Your task to perform on an android device: clear history in the chrome app Image 0: 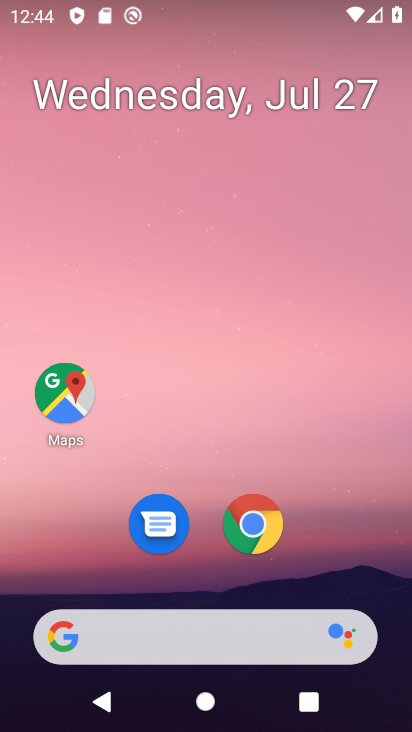
Step 0: click (265, 532)
Your task to perform on an android device: clear history in the chrome app Image 1: 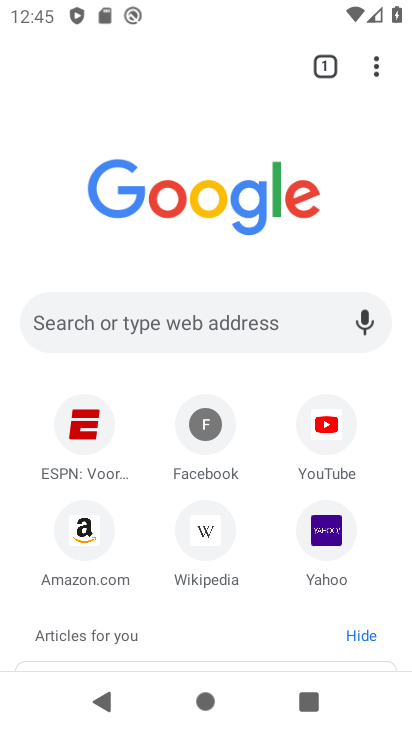
Step 1: click (376, 69)
Your task to perform on an android device: clear history in the chrome app Image 2: 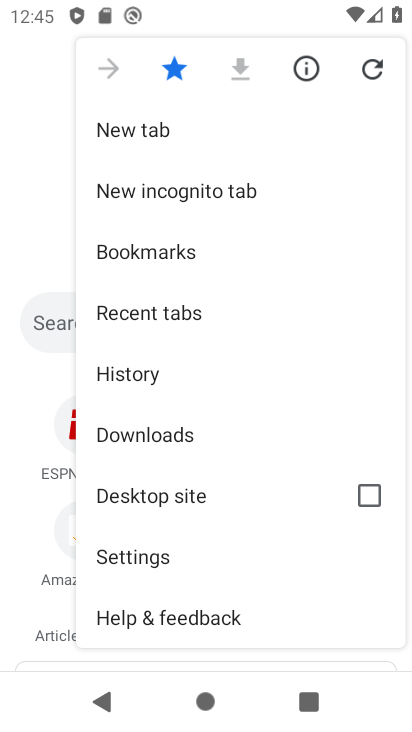
Step 2: click (139, 375)
Your task to perform on an android device: clear history in the chrome app Image 3: 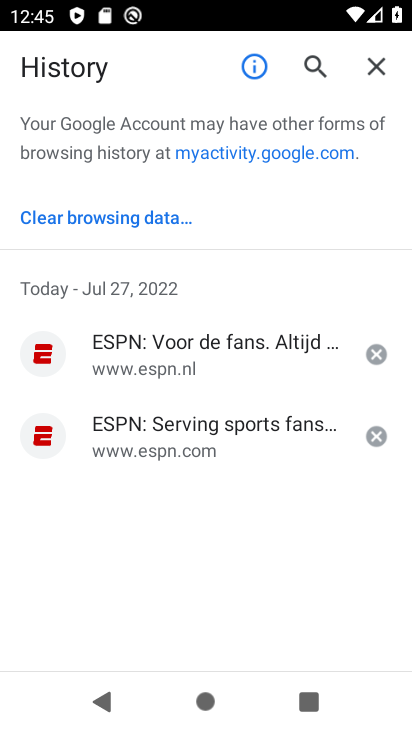
Step 3: click (124, 215)
Your task to perform on an android device: clear history in the chrome app Image 4: 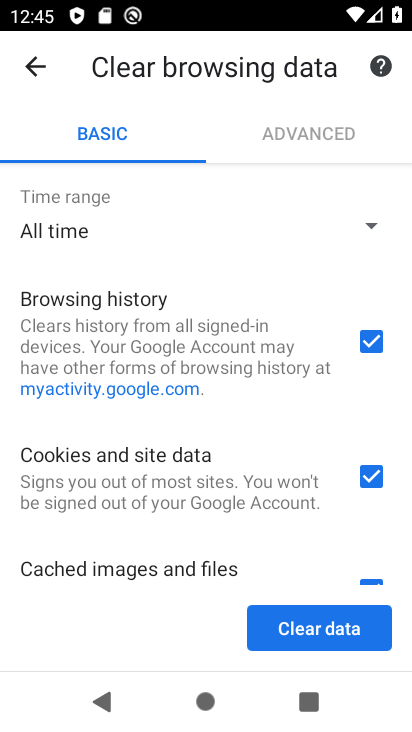
Step 4: click (321, 628)
Your task to perform on an android device: clear history in the chrome app Image 5: 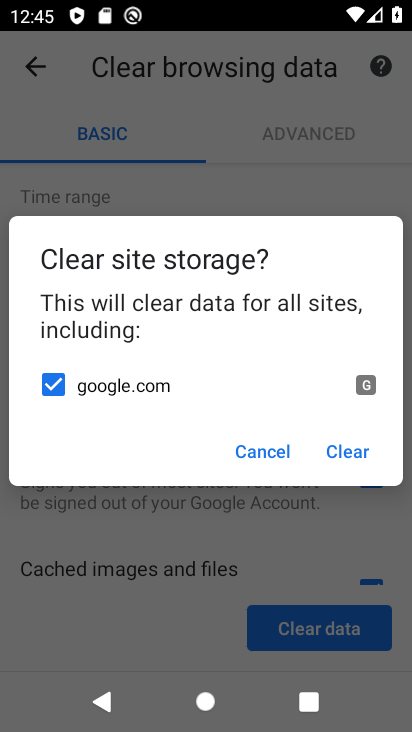
Step 5: click (341, 442)
Your task to perform on an android device: clear history in the chrome app Image 6: 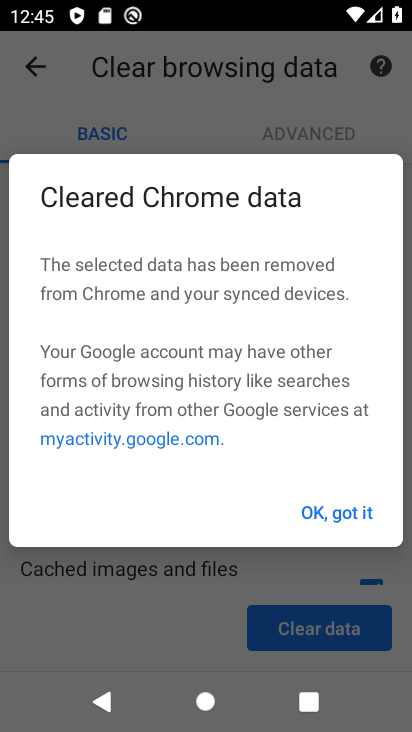
Step 6: click (351, 516)
Your task to perform on an android device: clear history in the chrome app Image 7: 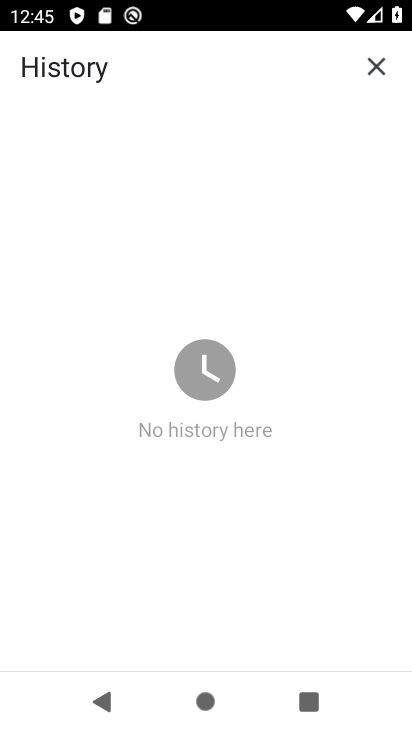
Step 7: task complete